Your task to perform on an android device: clear all cookies in the chrome app Image 0: 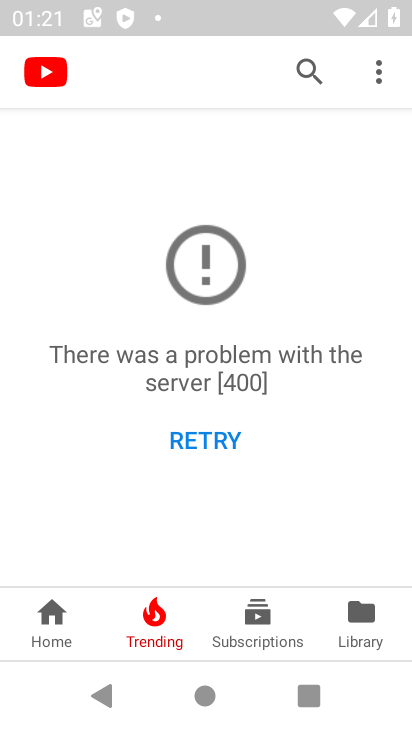
Step 0: press home button
Your task to perform on an android device: clear all cookies in the chrome app Image 1: 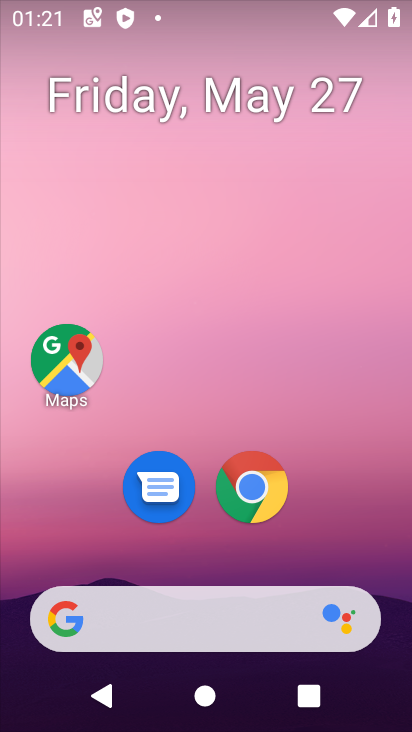
Step 1: click (252, 512)
Your task to perform on an android device: clear all cookies in the chrome app Image 2: 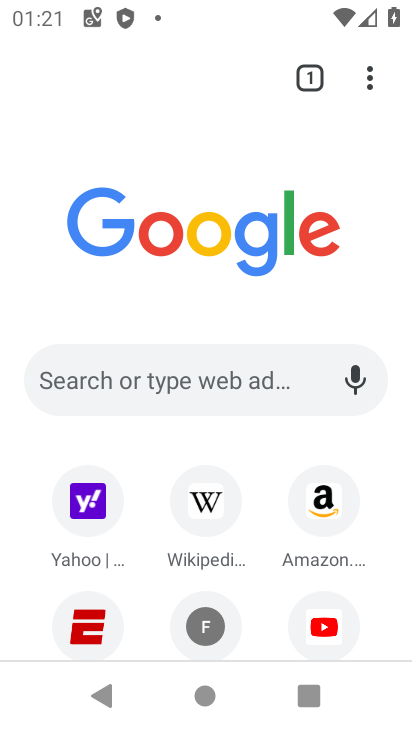
Step 2: click (368, 83)
Your task to perform on an android device: clear all cookies in the chrome app Image 3: 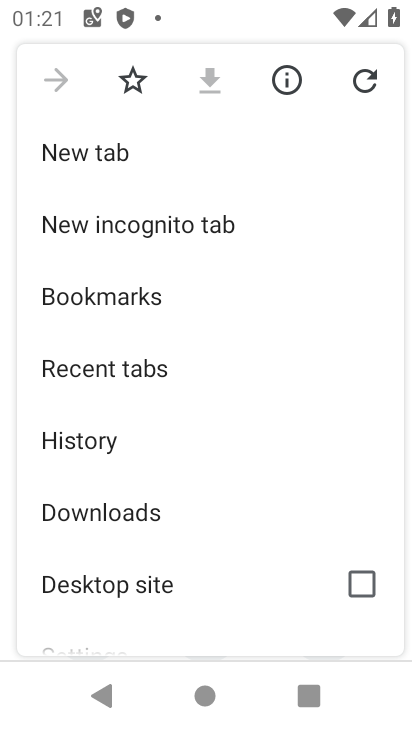
Step 3: drag from (222, 609) to (239, 180)
Your task to perform on an android device: clear all cookies in the chrome app Image 4: 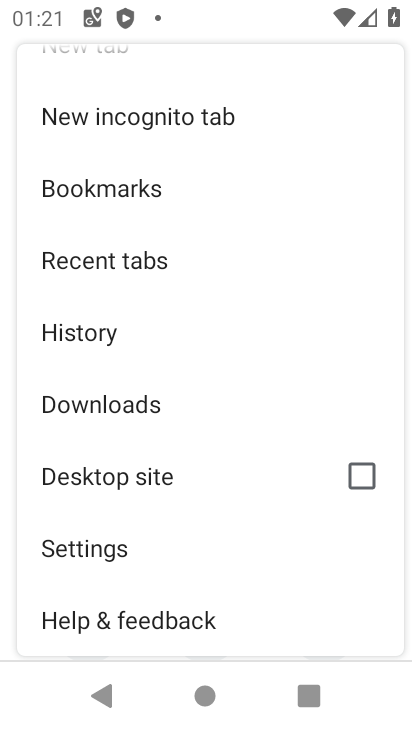
Step 4: click (113, 559)
Your task to perform on an android device: clear all cookies in the chrome app Image 5: 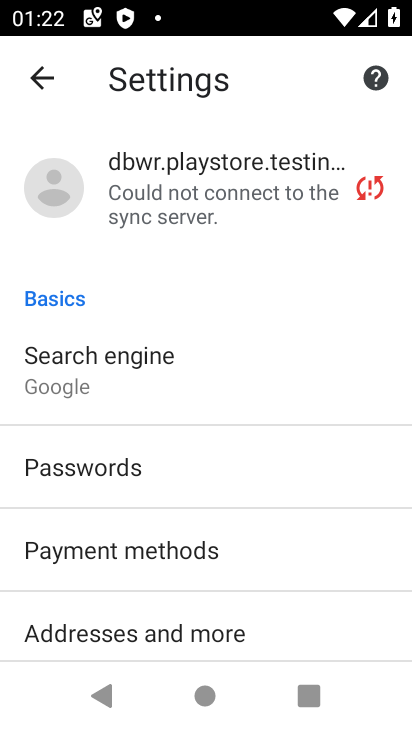
Step 5: drag from (321, 633) to (287, 194)
Your task to perform on an android device: clear all cookies in the chrome app Image 6: 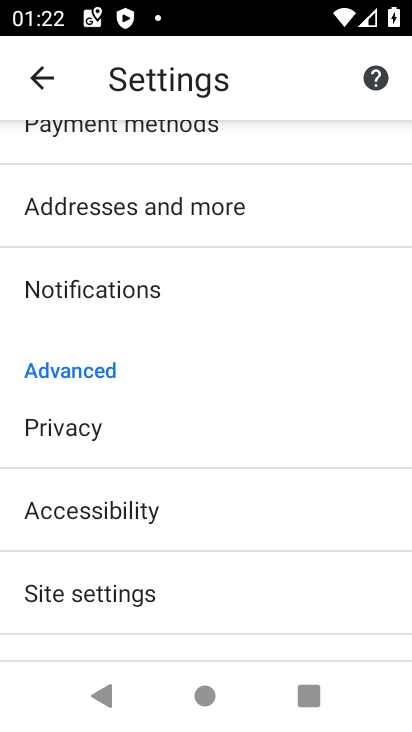
Step 6: click (84, 429)
Your task to perform on an android device: clear all cookies in the chrome app Image 7: 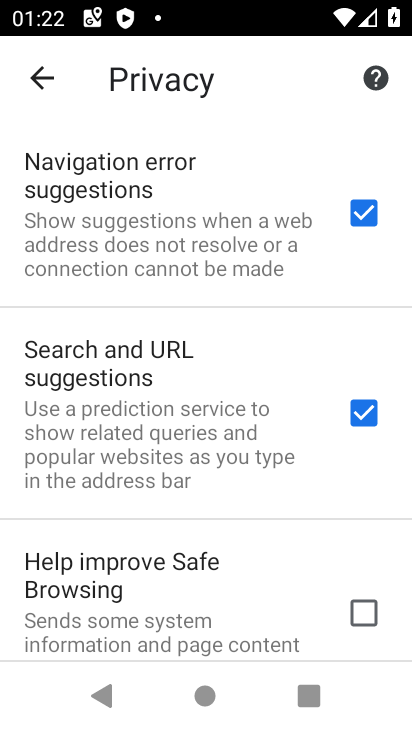
Step 7: drag from (191, 324) to (184, 173)
Your task to perform on an android device: clear all cookies in the chrome app Image 8: 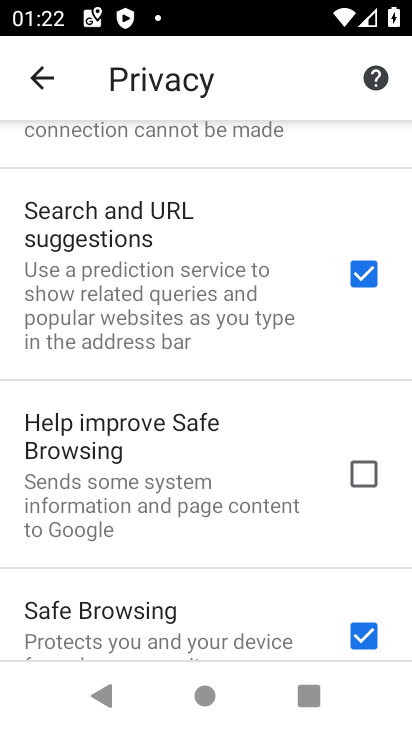
Step 8: drag from (248, 574) to (224, 123)
Your task to perform on an android device: clear all cookies in the chrome app Image 9: 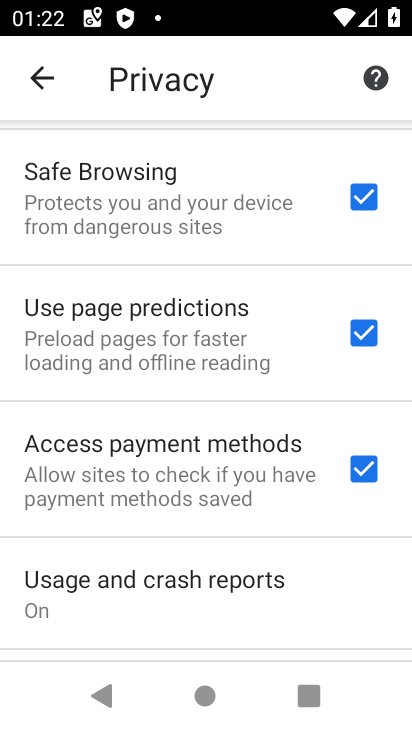
Step 9: drag from (195, 557) to (129, 182)
Your task to perform on an android device: clear all cookies in the chrome app Image 10: 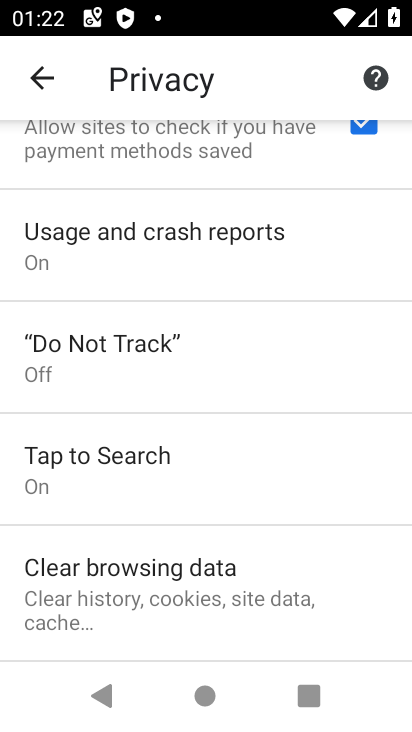
Step 10: click (169, 593)
Your task to perform on an android device: clear all cookies in the chrome app Image 11: 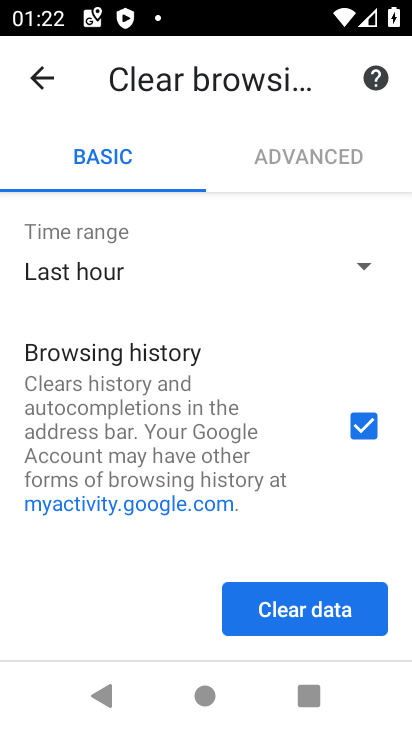
Step 11: click (355, 433)
Your task to perform on an android device: clear all cookies in the chrome app Image 12: 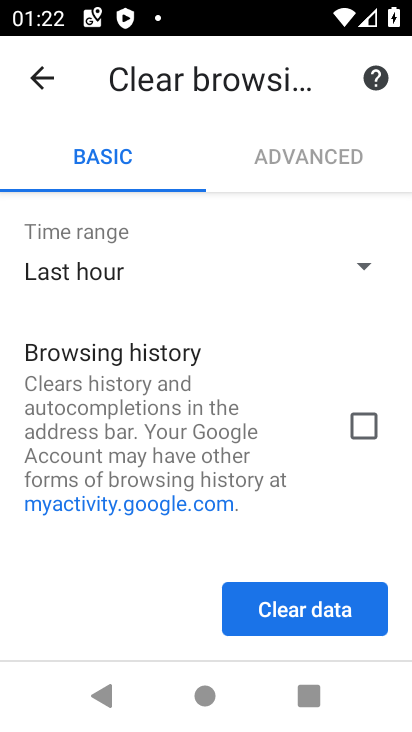
Step 12: drag from (288, 515) to (295, 215)
Your task to perform on an android device: clear all cookies in the chrome app Image 13: 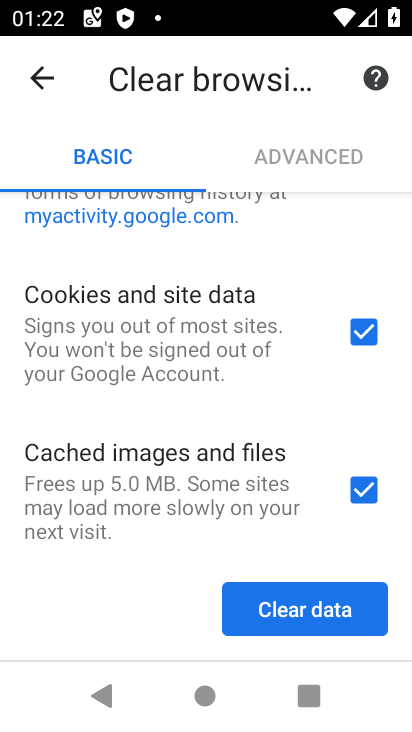
Step 13: click (368, 492)
Your task to perform on an android device: clear all cookies in the chrome app Image 14: 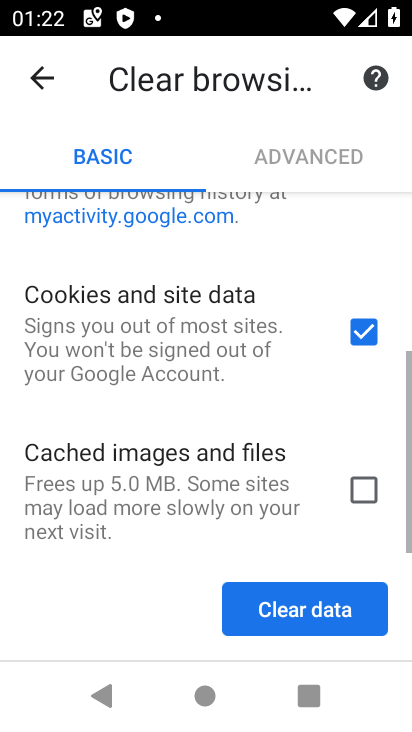
Step 14: drag from (264, 260) to (251, 614)
Your task to perform on an android device: clear all cookies in the chrome app Image 15: 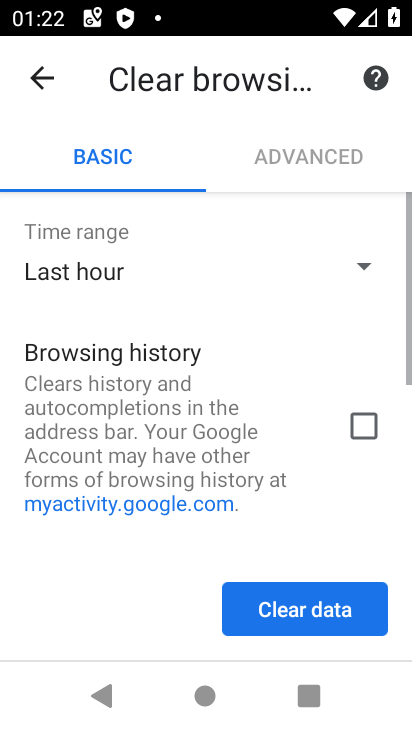
Step 15: click (367, 266)
Your task to perform on an android device: clear all cookies in the chrome app Image 16: 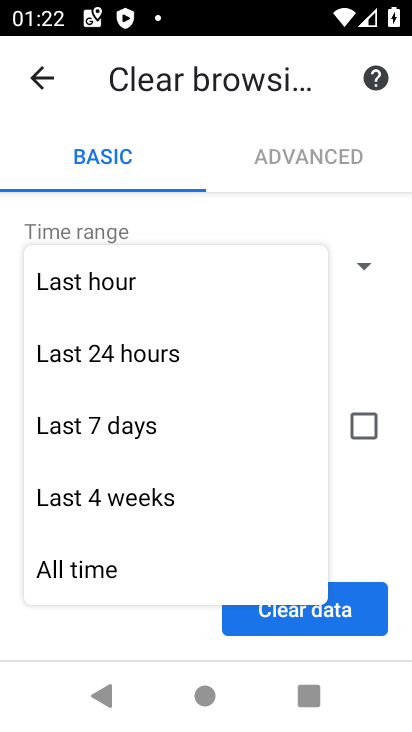
Step 16: click (85, 578)
Your task to perform on an android device: clear all cookies in the chrome app Image 17: 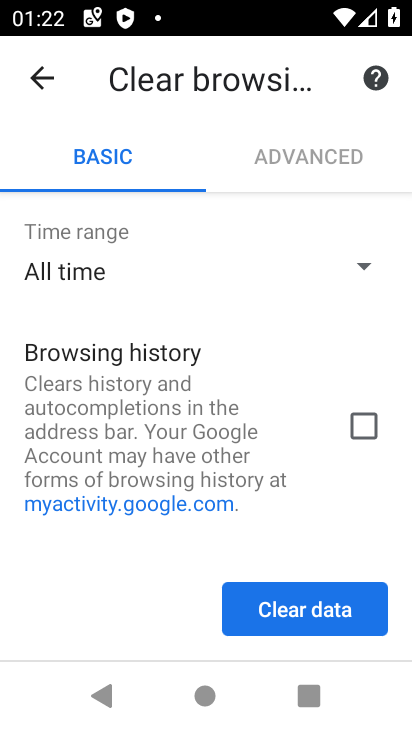
Step 17: click (324, 628)
Your task to perform on an android device: clear all cookies in the chrome app Image 18: 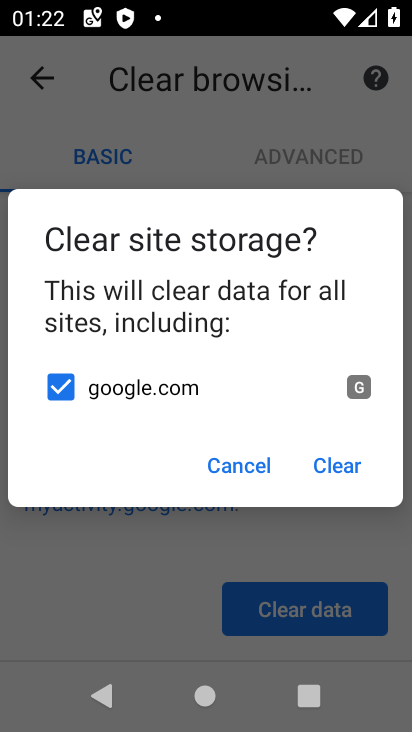
Step 18: click (330, 476)
Your task to perform on an android device: clear all cookies in the chrome app Image 19: 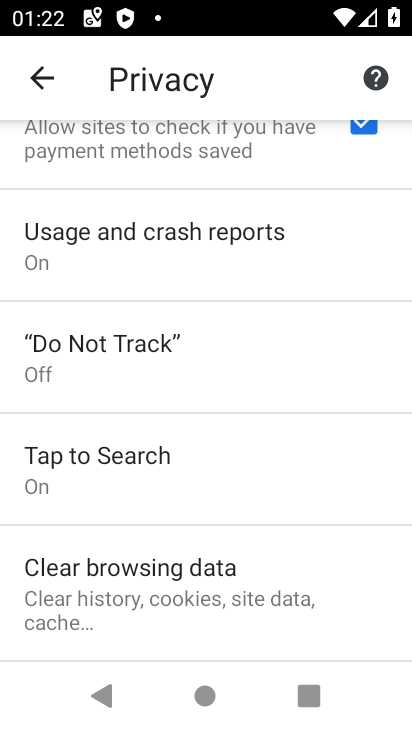
Step 19: task complete